Your task to perform on an android device: What's on my calendar tomorrow? Image 0: 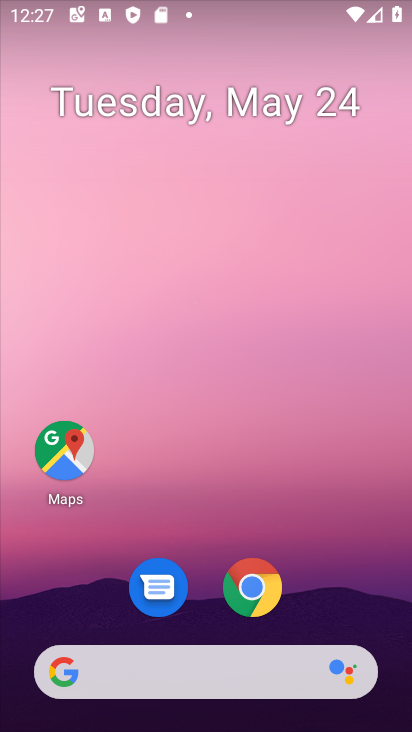
Step 0: drag from (206, 694) to (169, 121)
Your task to perform on an android device: What's on my calendar tomorrow? Image 1: 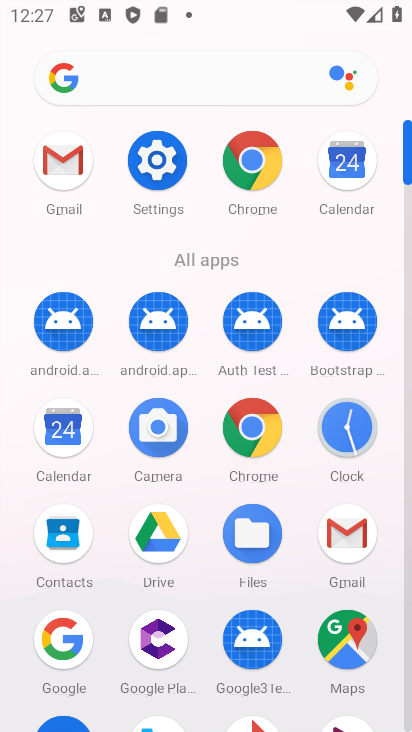
Step 1: click (78, 425)
Your task to perform on an android device: What's on my calendar tomorrow? Image 2: 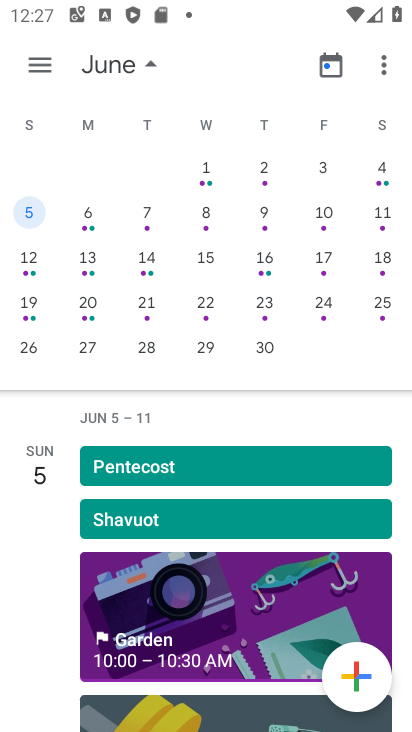
Step 2: drag from (117, 203) to (411, 243)
Your task to perform on an android device: What's on my calendar tomorrow? Image 3: 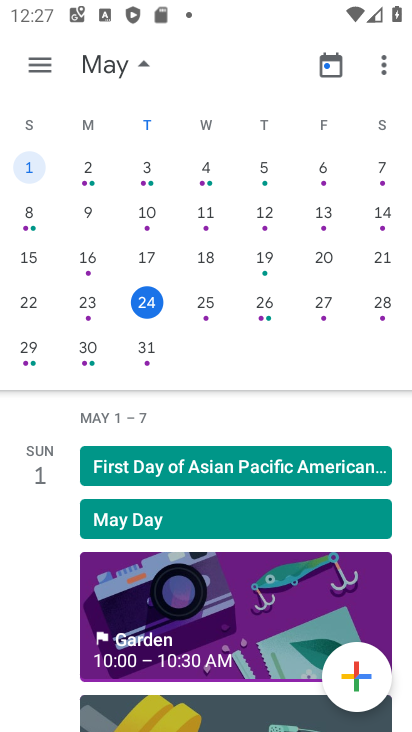
Step 3: click (209, 306)
Your task to perform on an android device: What's on my calendar tomorrow? Image 4: 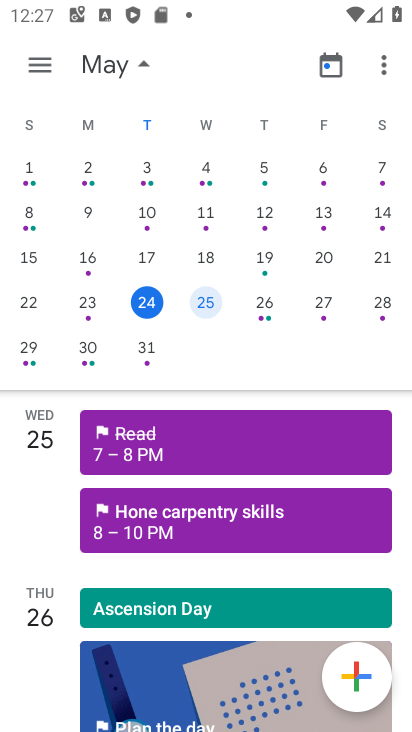
Step 4: task complete